Your task to perform on an android device: Show me popular games on the Play Store Image 0: 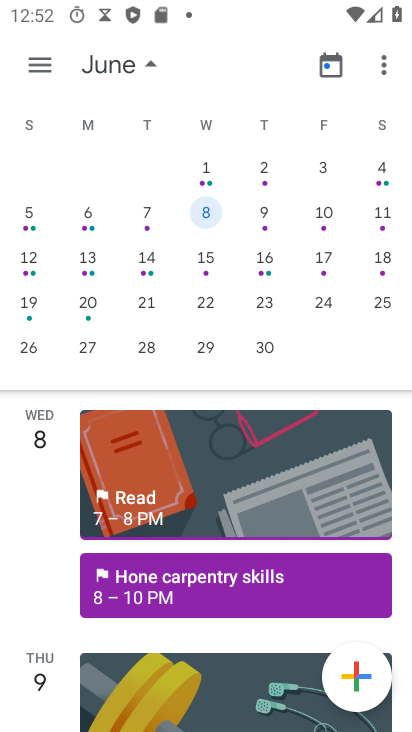
Step 0: press back button
Your task to perform on an android device: Show me popular games on the Play Store Image 1: 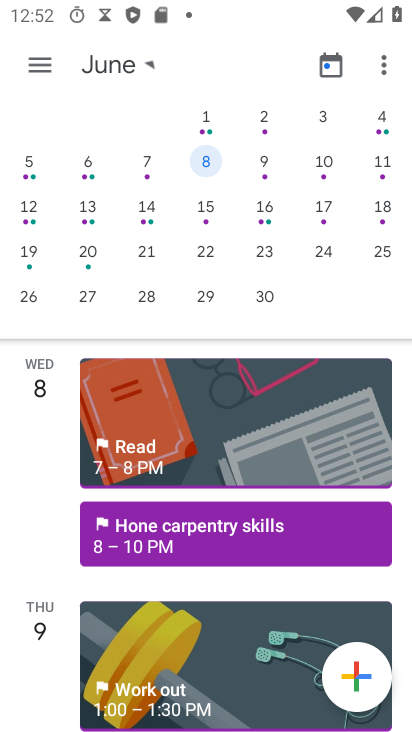
Step 1: press back button
Your task to perform on an android device: Show me popular games on the Play Store Image 2: 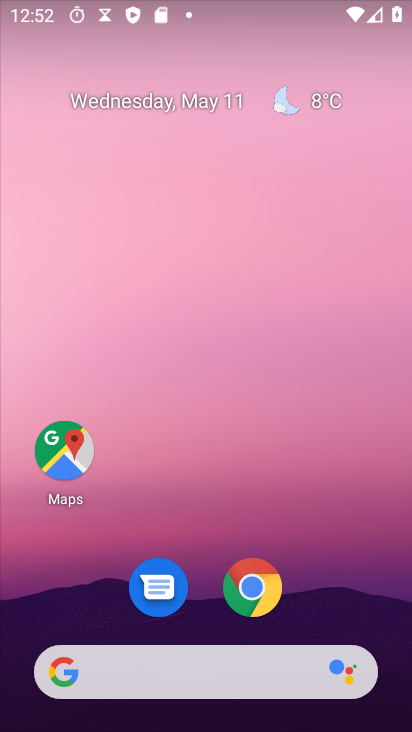
Step 2: drag from (361, 593) to (91, 0)
Your task to perform on an android device: Show me popular games on the Play Store Image 3: 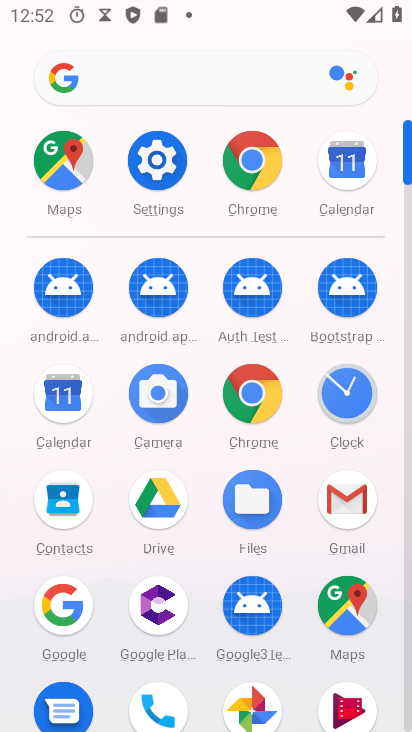
Step 3: drag from (208, 556) to (161, 270)
Your task to perform on an android device: Show me popular games on the Play Store Image 4: 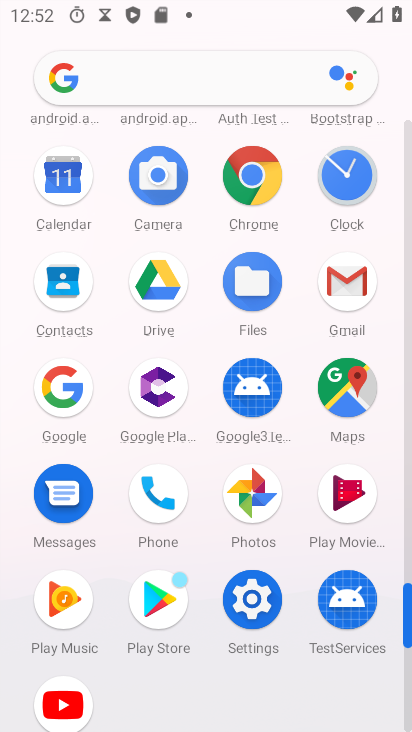
Step 4: click (152, 591)
Your task to perform on an android device: Show me popular games on the Play Store Image 5: 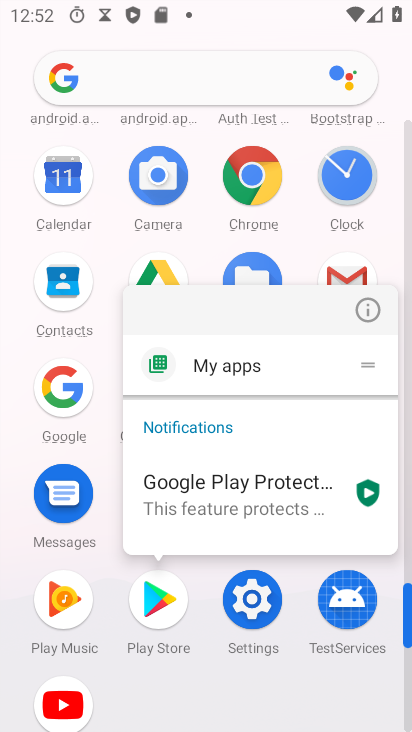
Step 5: click (157, 591)
Your task to perform on an android device: Show me popular games on the Play Store Image 6: 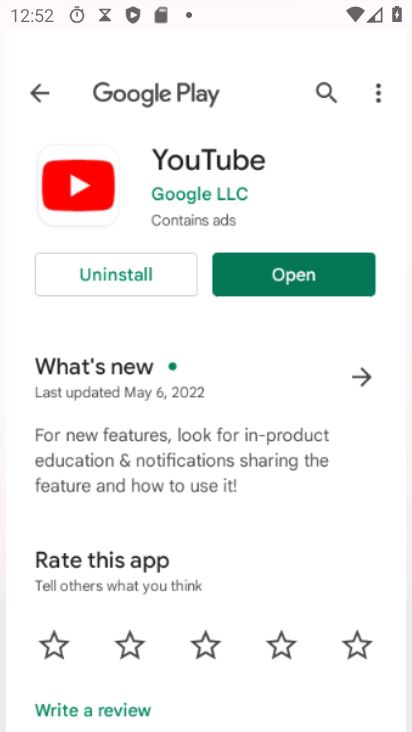
Step 6: click (159, 592)
Your task to perform on an android device: Show me popular games on the Play Store Image 7: 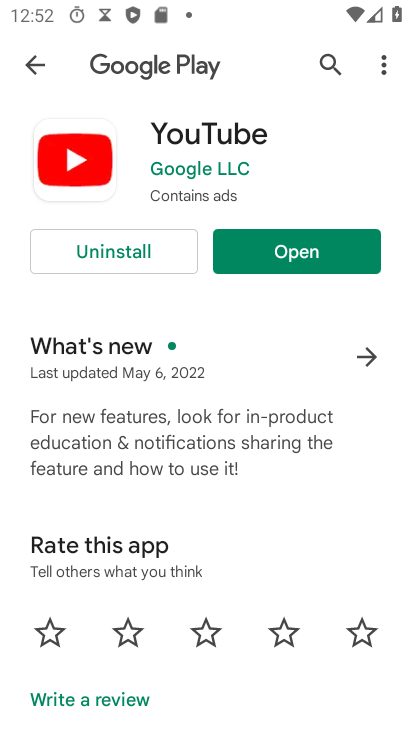
Step 7: click (32, 52)
Your task to perform on an android device: Show me popular games on the Play Store Image 8: 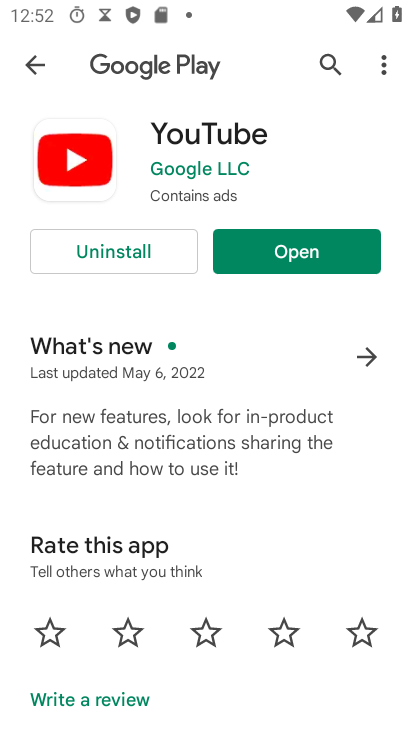
Step 8: click (28, 58)
Your task to perform on an android device: Show me popular games on the Play Store Image 9: 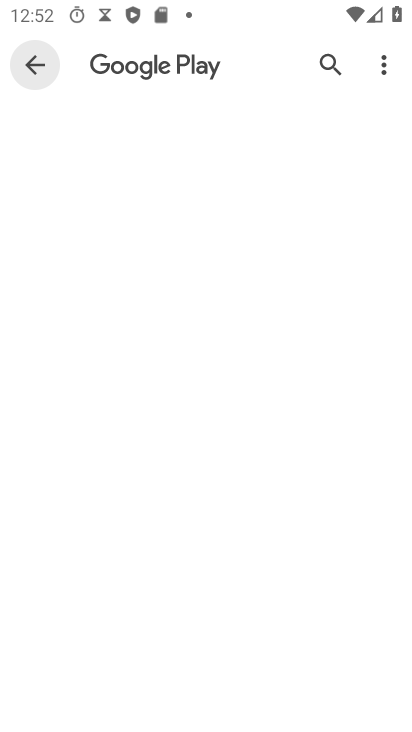
Step 9: click (28, 58)
Your task to perform on an android device: Show me popular games on the Play Store Image 10: 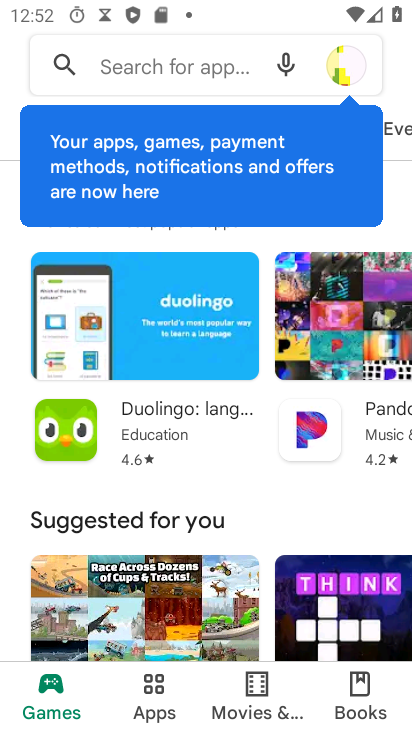
Step 10: click (111, 63)
Your task to perform on an android device: Show me popular games on the Play Store Image 11: 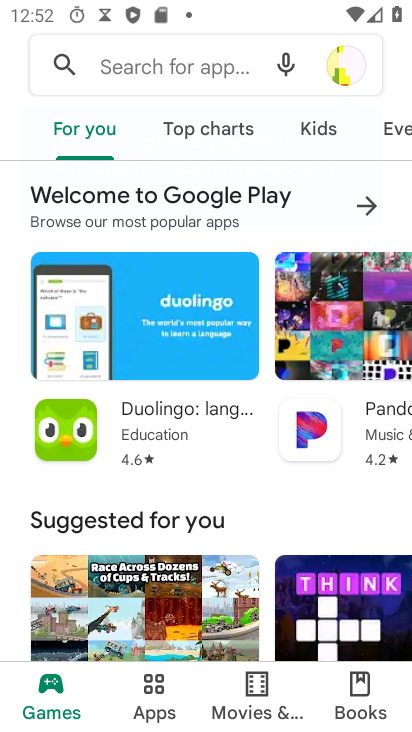
Step 11: click (111, 66)
Your task to perform on an android device: Show me popular games on the Play Store Image 12: 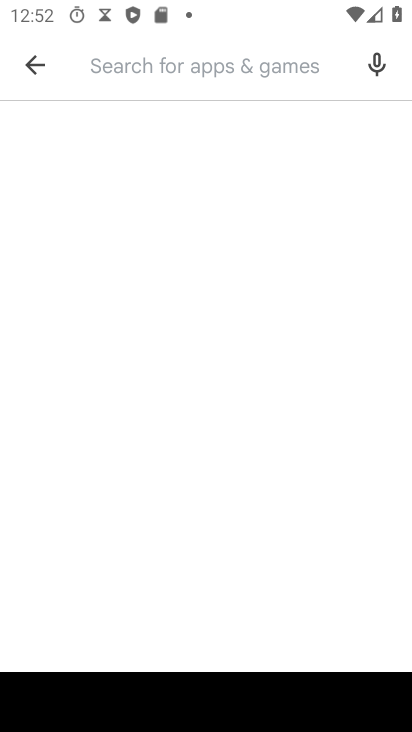
Step 12: click (111, 66)
Your task to perform on an android device: Show me popular games on the Play Store Image 13: 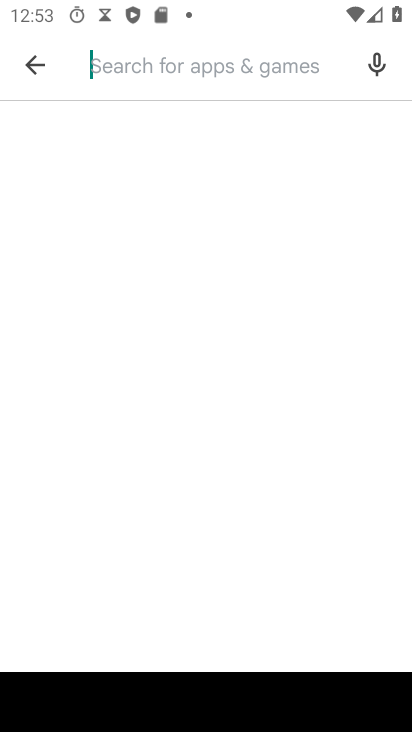
Step 13: type "popular games"
Your task to perform on an android device: Show me popular games on the Play Store Image 14: 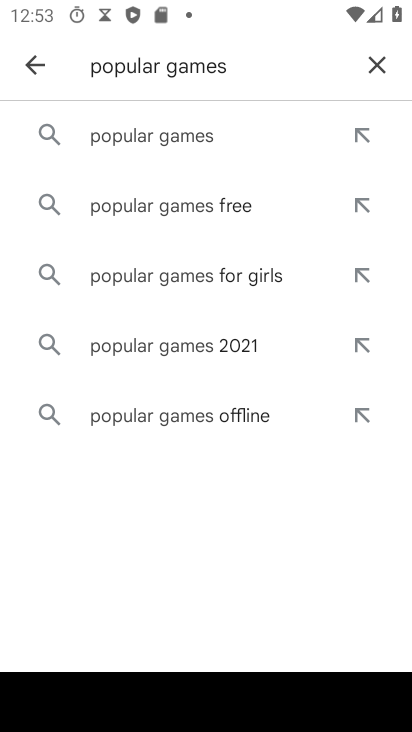
Step 14: click (109, 130)
Your task to perform on an android device: Show me popular games on the Play Store Image 15: 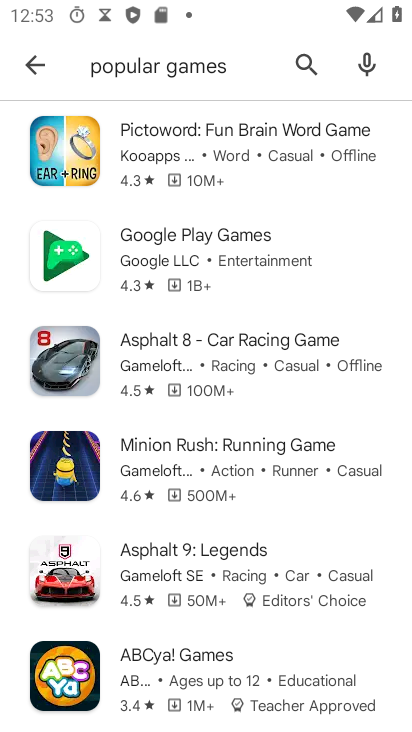
Step 15: task complete